Your task to perform on an android device: turn off wifi Image 0: 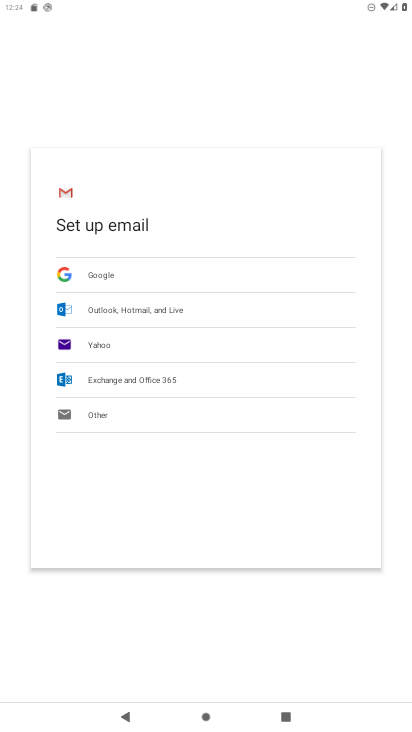
Step 0: press home button
Your task to perform on an android device: turn off wifi Image 1: 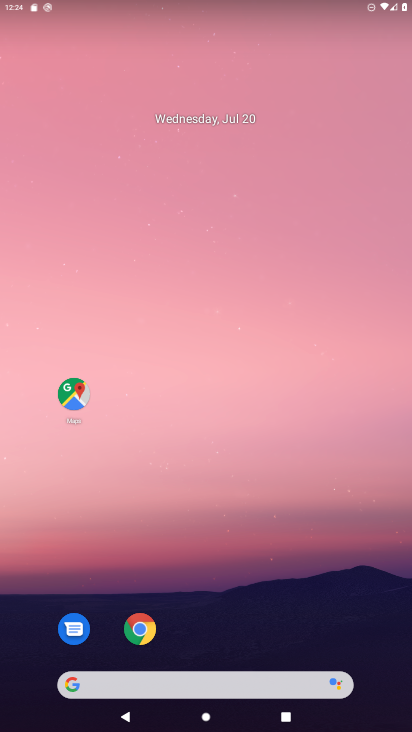
Step 1: drag from (203, 585) to (176, 255)
Your task to perform on an android device: turn off wifi Image 2: 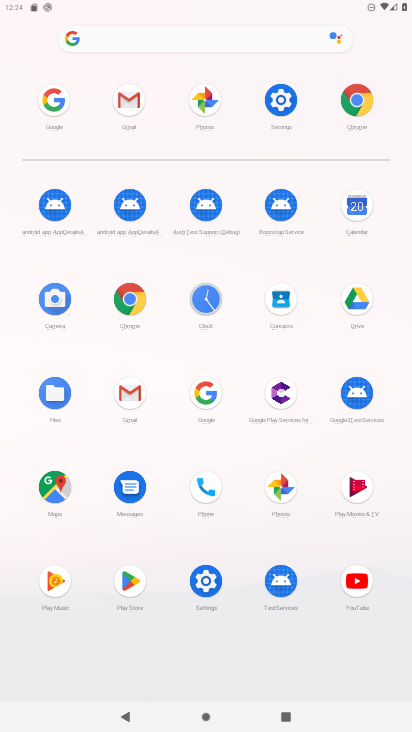
Step 2: click (279, 96)
Your task to perform on an android device: turn off wifi Image 3: 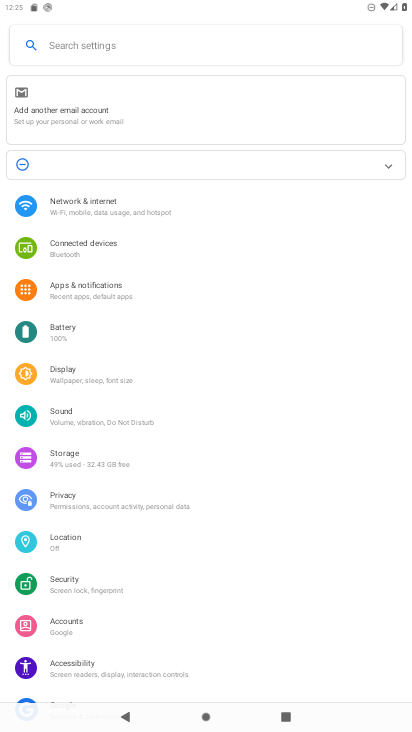
Step 3: click (108, 211)
Your task to perform on an android device: turn off wifi Image 4: 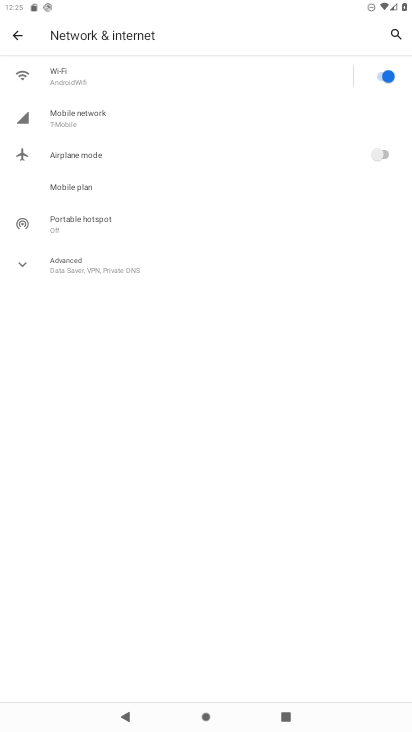
Step 4: click (374, 80)
Your task to perform on an android device: turn off wifi Image 5: 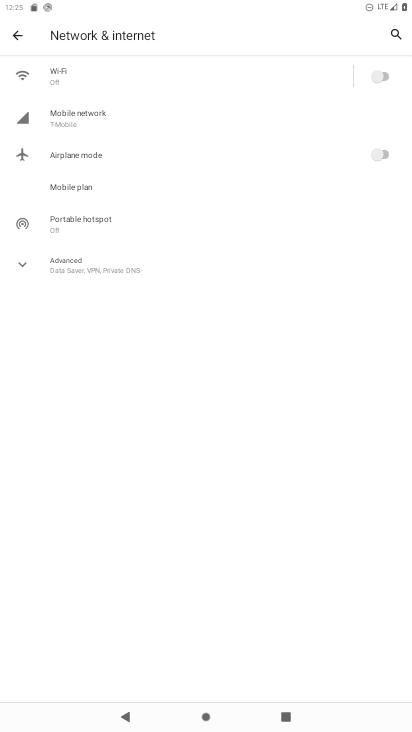
Step 5: task complete